Your task to perform on an android device: refresh tabs in the chrome app Image 0: 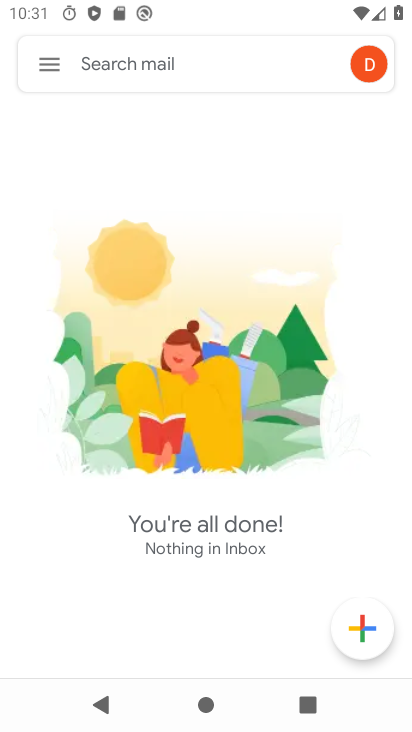
Step 0: press home button
Your task to perform on an android device: refresh tabs in the chrome app Image 1: 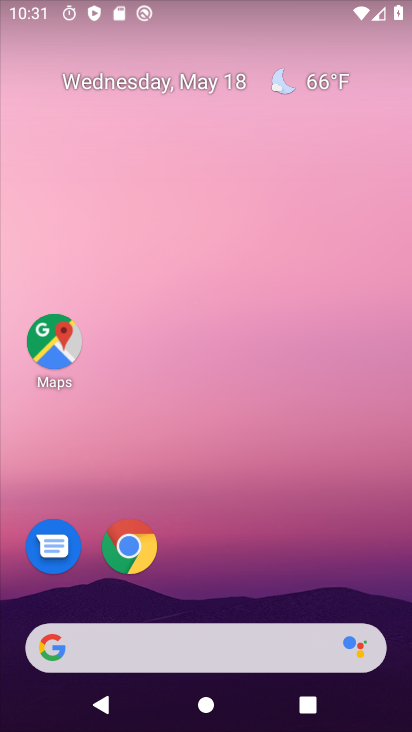
Step 1: click (123, 548)
Your task to perform on an android device: refresh tabs in the chrome app Image 2: 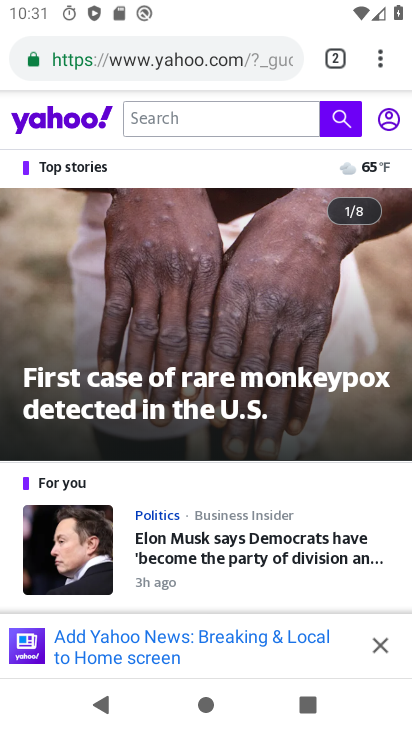
Step 2: click (387, 65)
Your task to perform on an android device: refresh tabs in the chrome app Image 3: 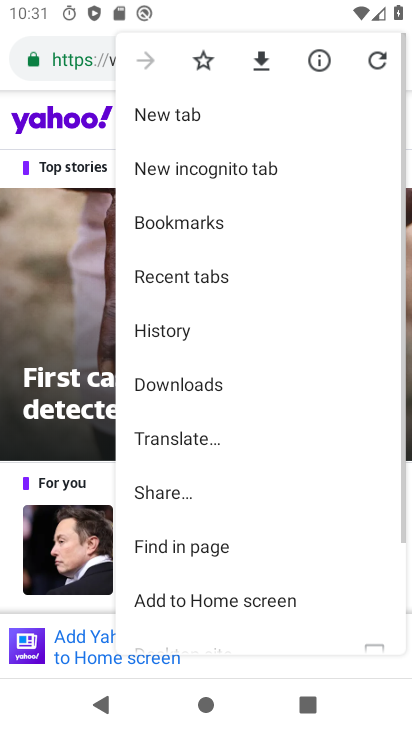
Step 3: click (384, 62)
Your task to perform on an android device: refresh tabs in the chrome app Image 4: 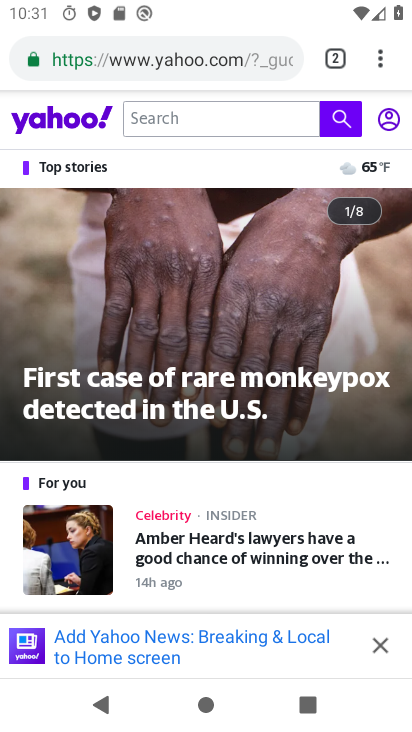
Step 4: task complete